Your task to perform on an android device: open chrome privacy settings Image 0: 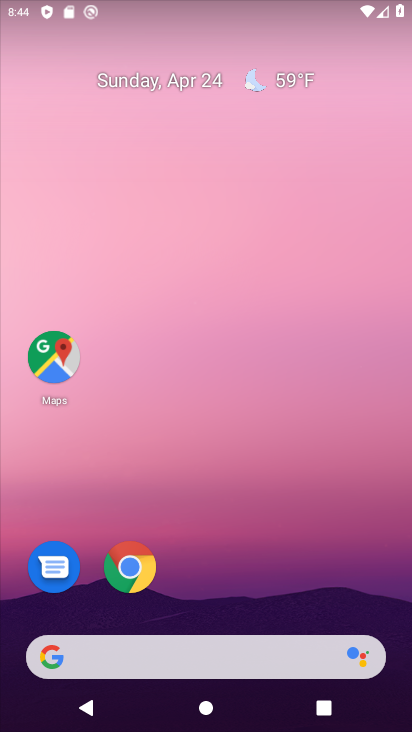
Step 0: click (130, 572)
Your task to perform on an android device: open chrome privacy settings Image 1: 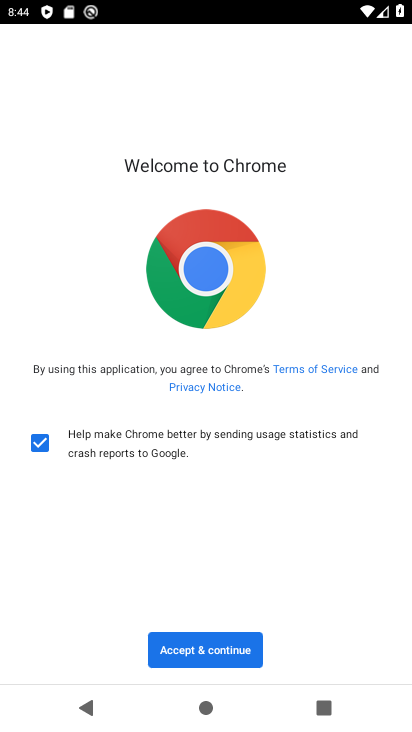
Step 1: click (222, 651)
Your task to perform on an android device: open chrome privacy settings Image 2: 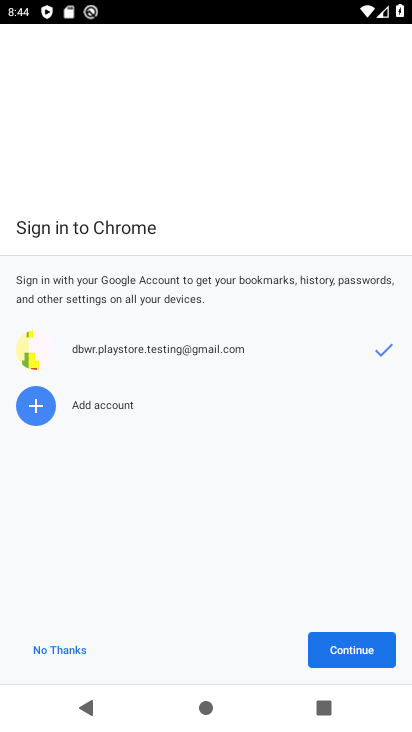
Step 2: click (332, 645)
Your task to perform on an android device: open chrome privacy settings Image 3: 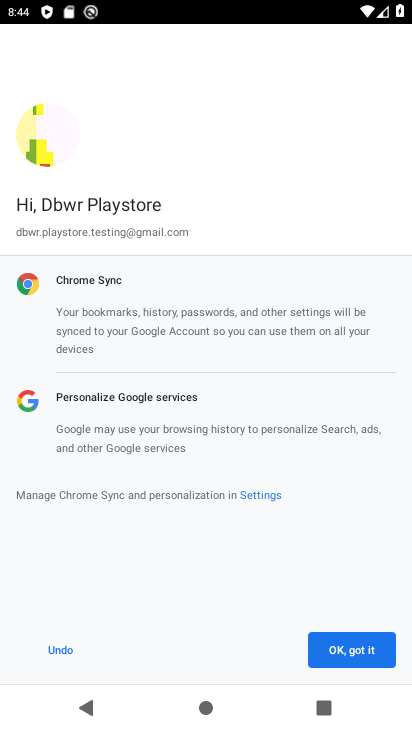
Step 3: click (332, 645)
Your task to perform on an android device: open chrome privacy settings Image 4: 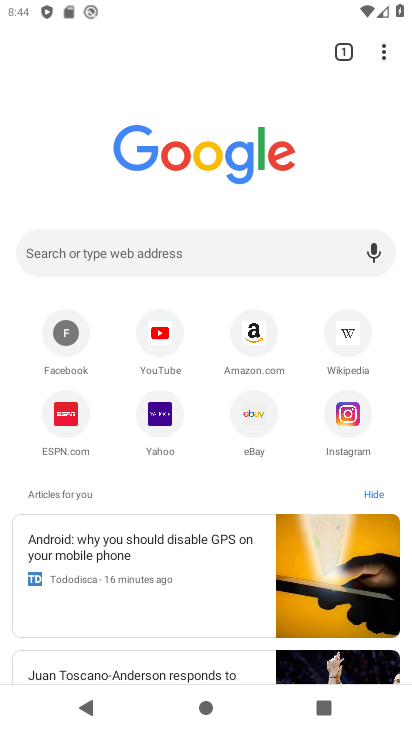
Step 4: click (383, 44)
Your task to perform on an android device: open chrome privacy settings Image 5: 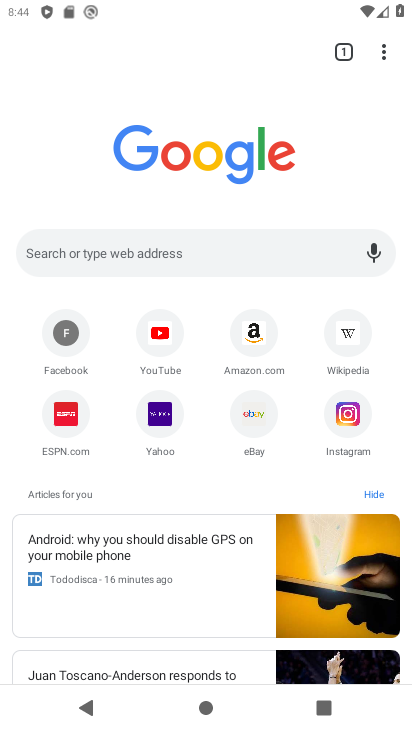
Step 5: click (382, 47)
Your task to perform on an android device: open chrome privacy settings Image 6: 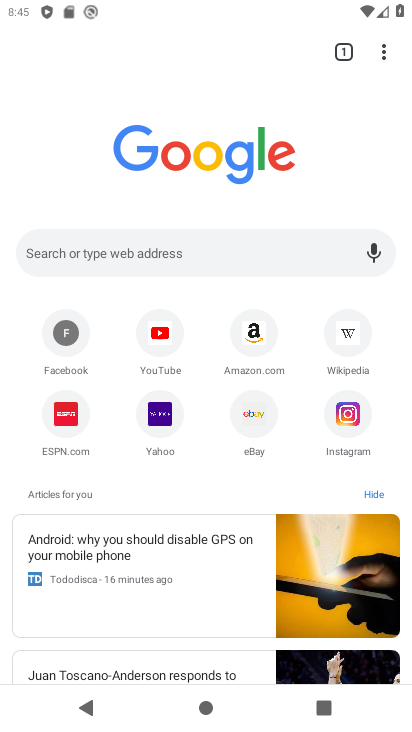
Step 6: click (382, 47)
Your task to perform on an android device: open chrome privacy settings Image 7: 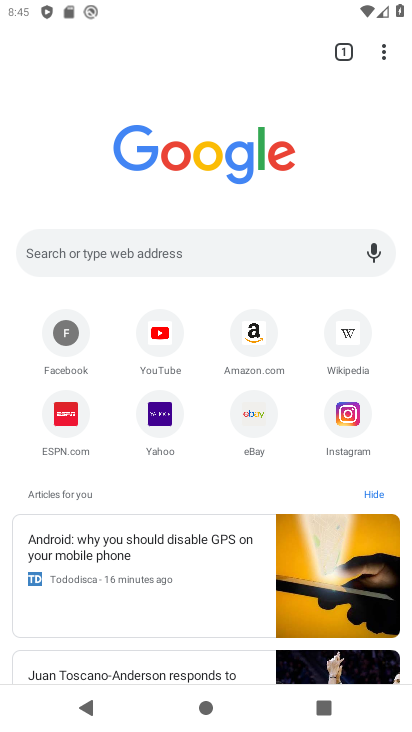
Step 7: click (382, 47)
Your task to perform on an android device: open chrome privacy settings Image 8: 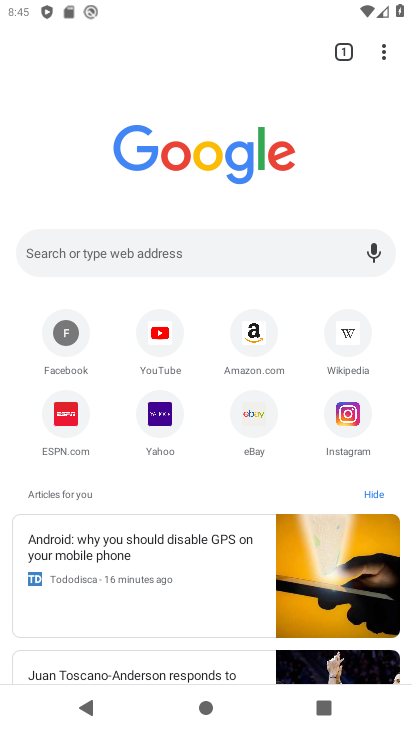
Step 8: click (382, 47)
Your task to perform on an android device: open chrome privacy settings Image 9: 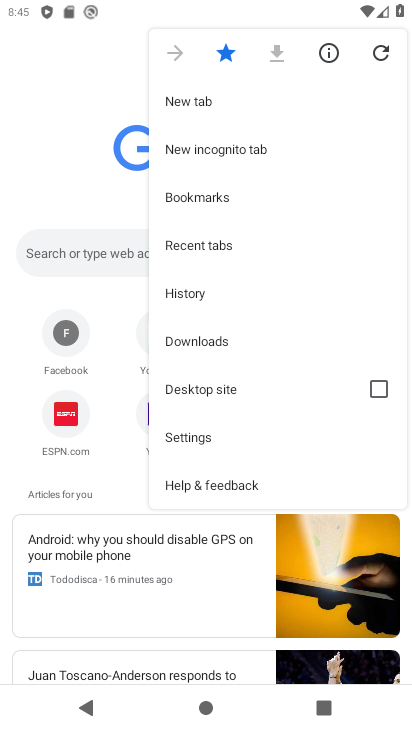
Step 9: click (174, 433)
Your task to perform on an android device: open chrome privacy settings Image 10: 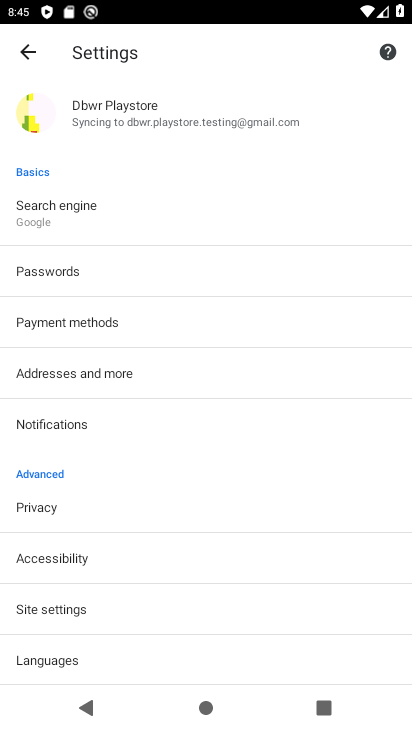
Step 10: click (44, 511)
Your task to perform on an android device: open chrome privacy settings Image 11: 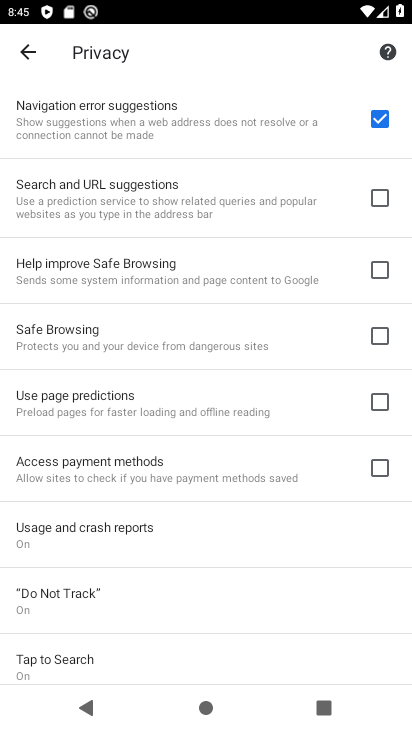
Step 11: task complete